Your task to perform on an android device: Go to internet settings Image 0: 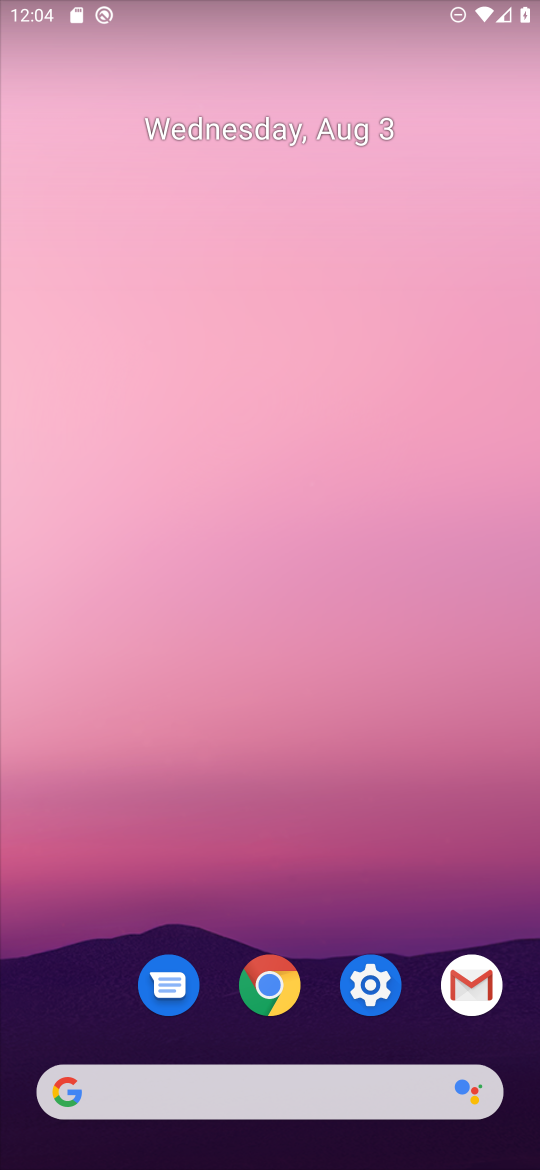
Step 0: click (357, 1005)
Your task to perform on an android device: Go to internet settings Image 1: 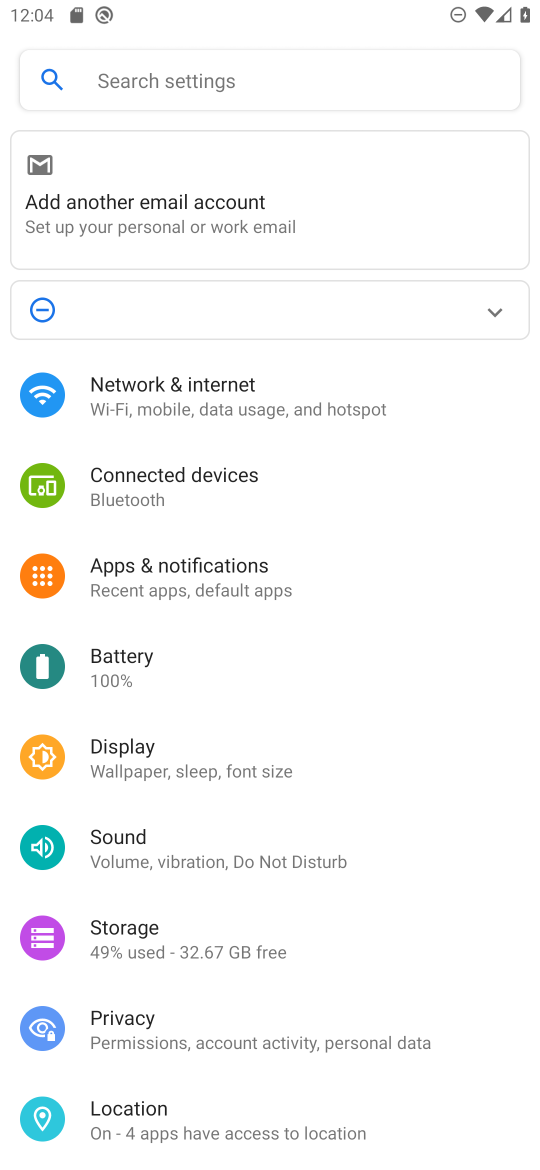
Step 1: click (186, 266)
Your task to perform on an android device: Go to internet settings Image 2: 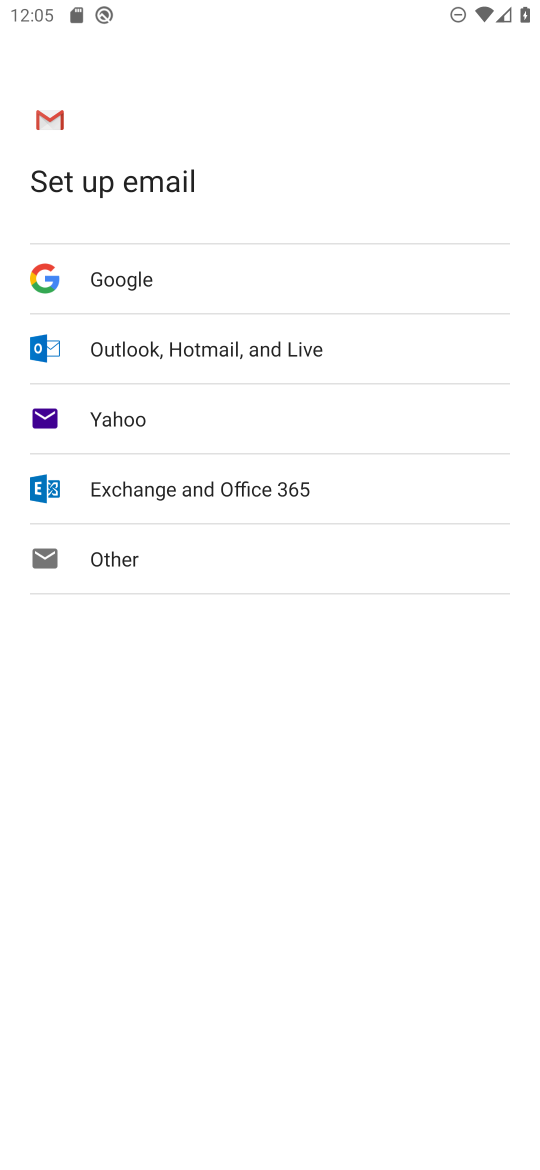
Step 2: press home button
Your task to perform on an android device: Go to internet settings Image 3: 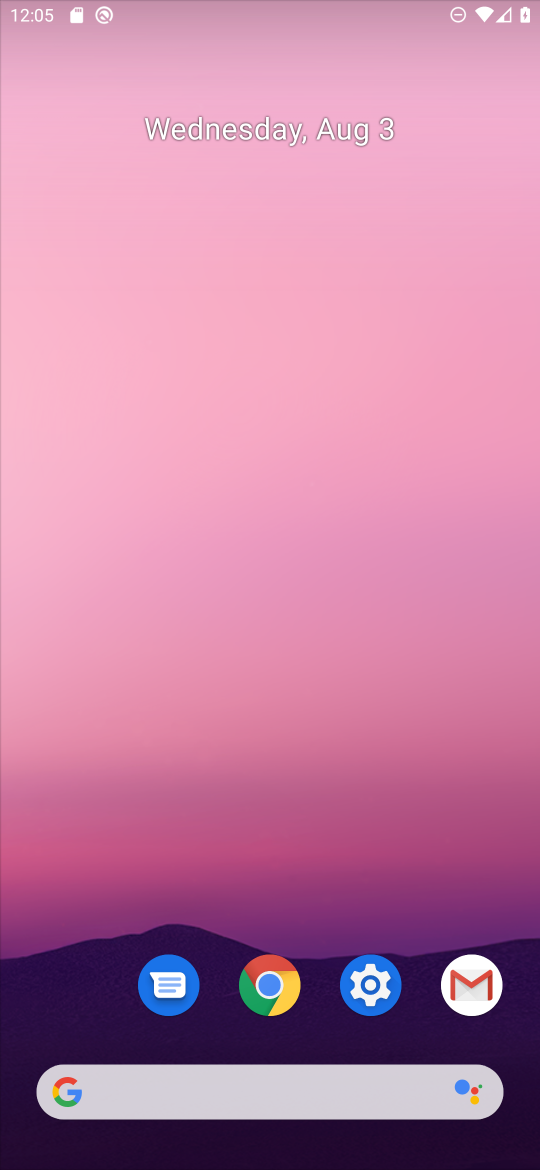
Step 3: click (363, 983)
Your task to perform on an android device: Go to internet settings Image 4: 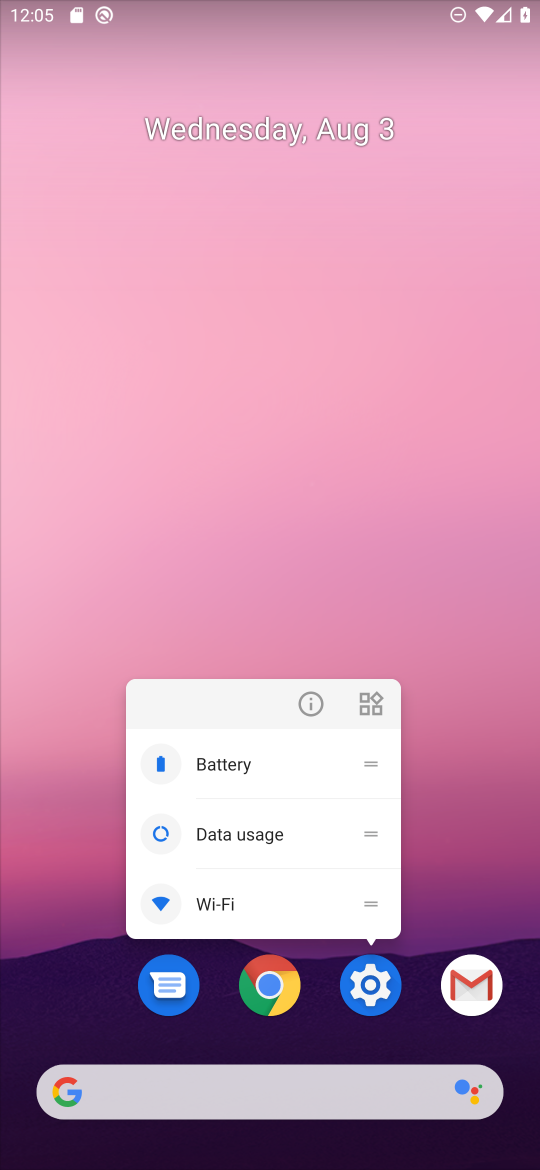
Step 4: click (364, 1001)
Your task to perform on an android device: Go to internet settings Image 5: 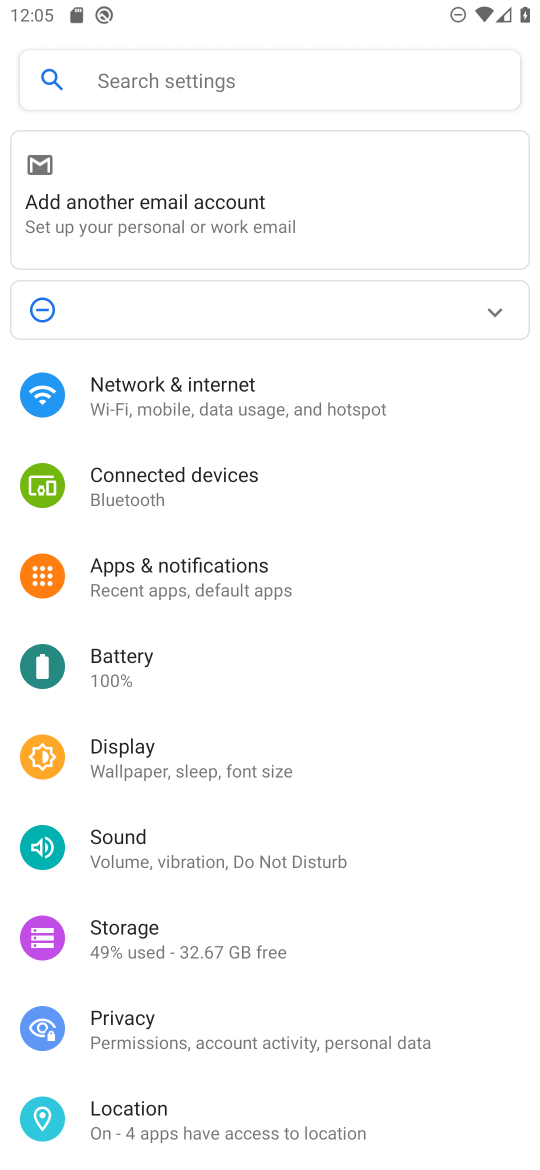
Step 5: click (195, 412)
Your task to perform on an android device: Go to internet settings Image 6: 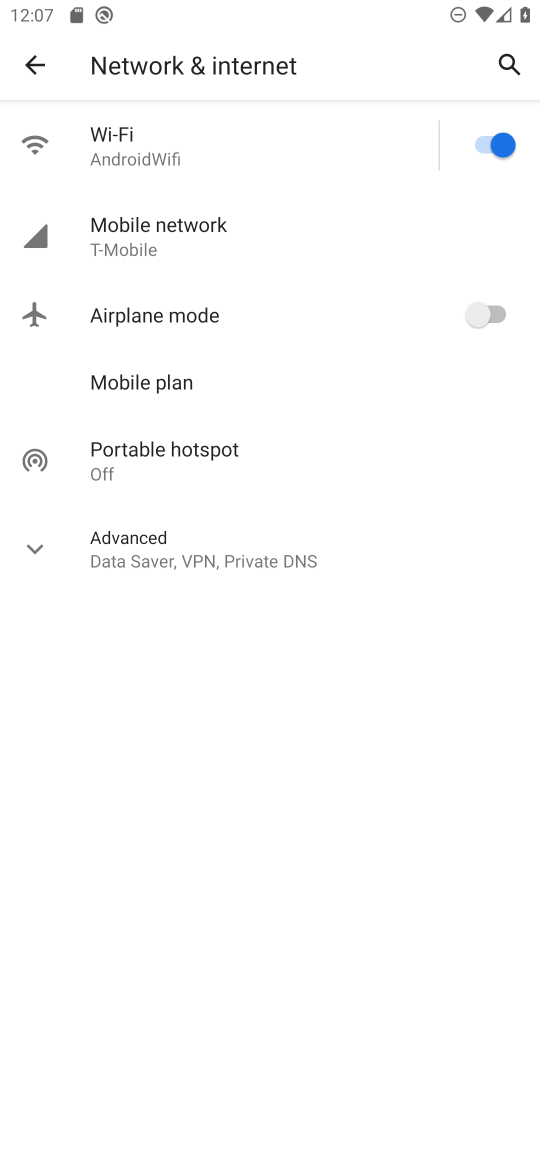
Step 6: task complete